Your task to perform on an android device: change keyboard looks Image 0: 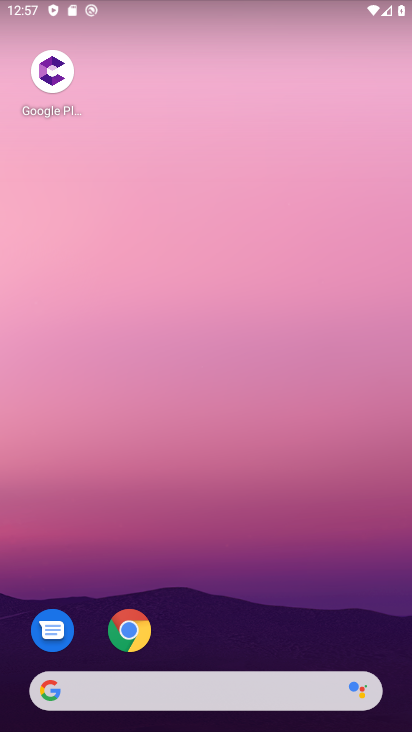
Step 0: drag from (244, 697) to (257, 262)
Your task to perform on an android device: change keyboard looks Image 1: 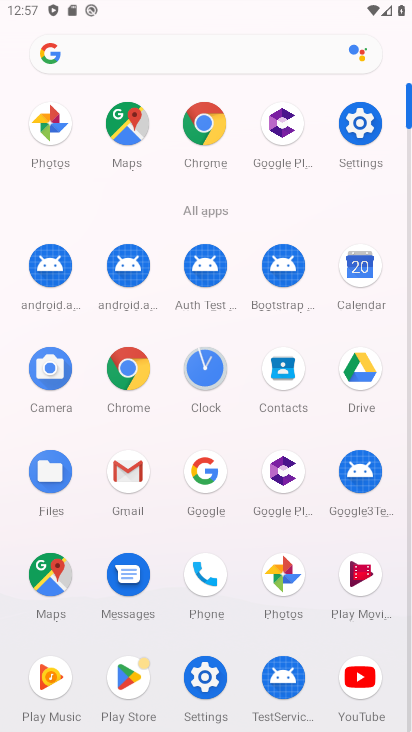
Step 1: click (346, 128)
Your task to perform on an android device: change keyboard looks Image 2: 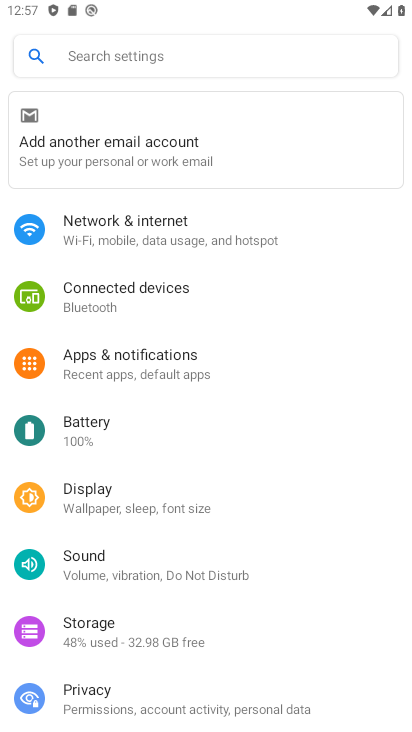
Step 2: click (143, 64)
Your task to perform on an android device: change keyboard looks Image 3: 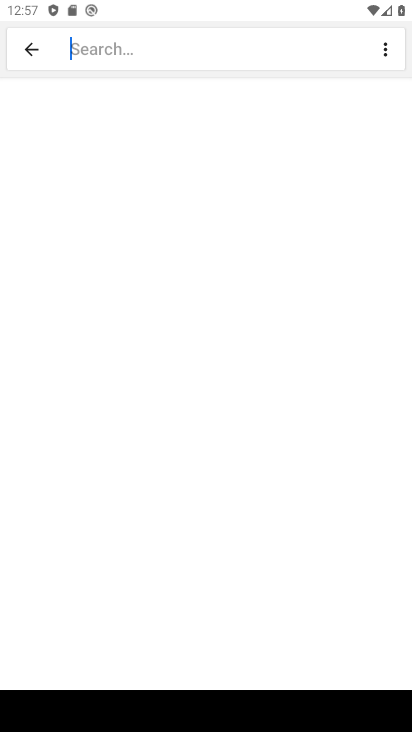
Step 3: drag from (361, 712) to (373, 554)
Your task to perform on an android device: change keyboard looks Image 4: 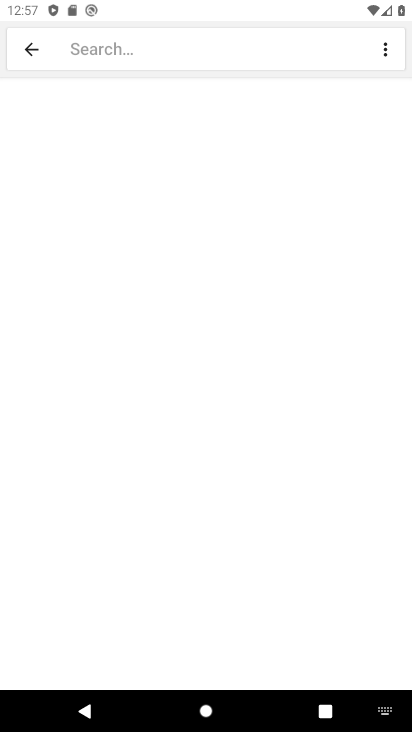
Step 4: click (389, 712)
Your task to perform on an android device: change keyboard looks Image 5: 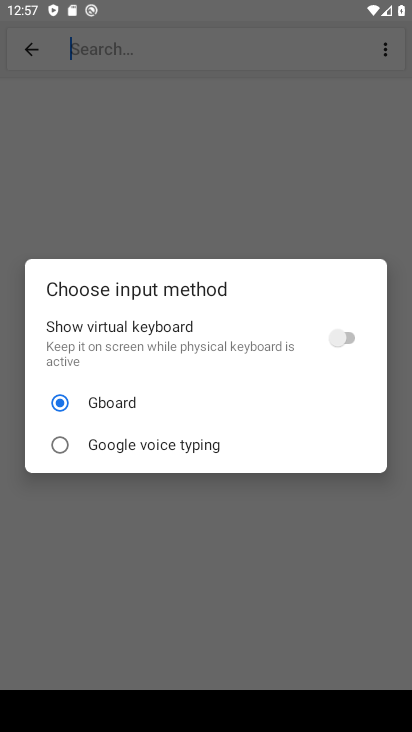
Step 5: click (351, 332)
Your task to perform on an android device: change keyboard looks Image 6: 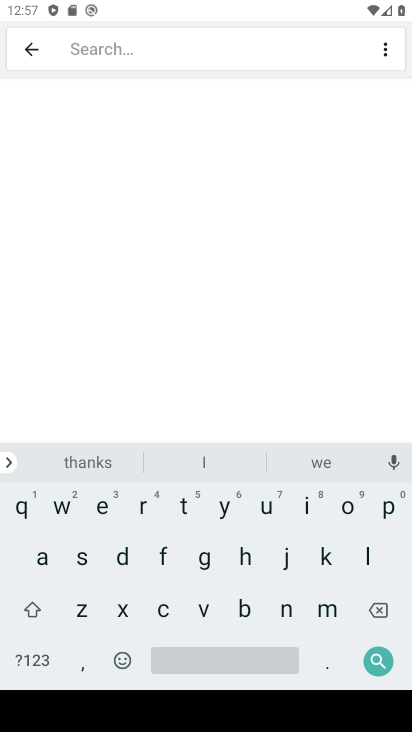
Step 6: click (328, 555)
Your task to perform on an android device: change keyboard looks Image 7: 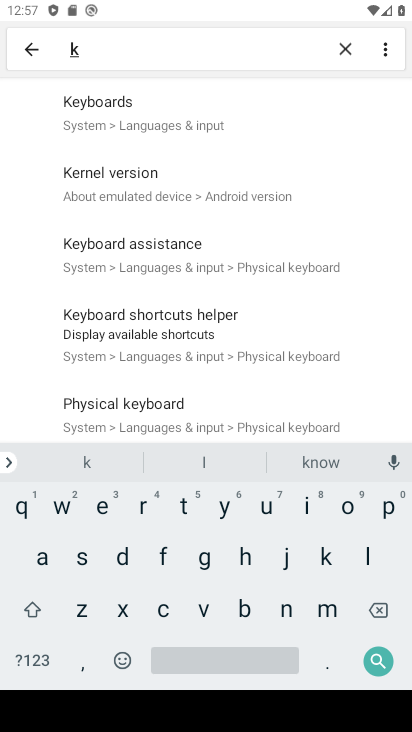
Step 7: click (180, 132)
Your task to perform on an android device: change keyboard looks Image 8: 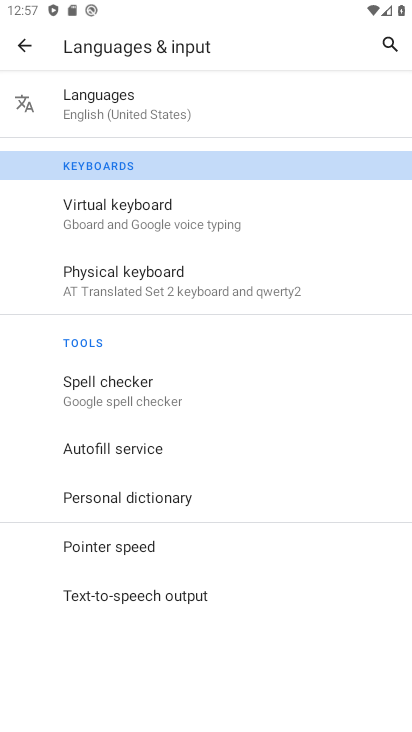
Step 8: click (106, 267)
Your task to perform on an android device: change keyboard looks Image 9: 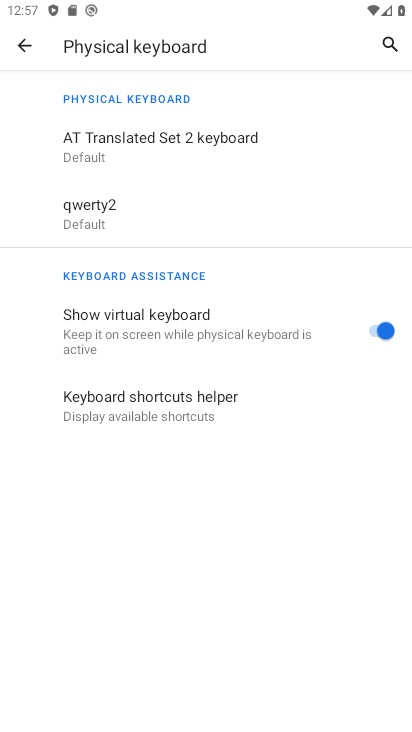
Step 9: click (21, 49)
Your task to perform on an android device: change keyboard looks Image 10: 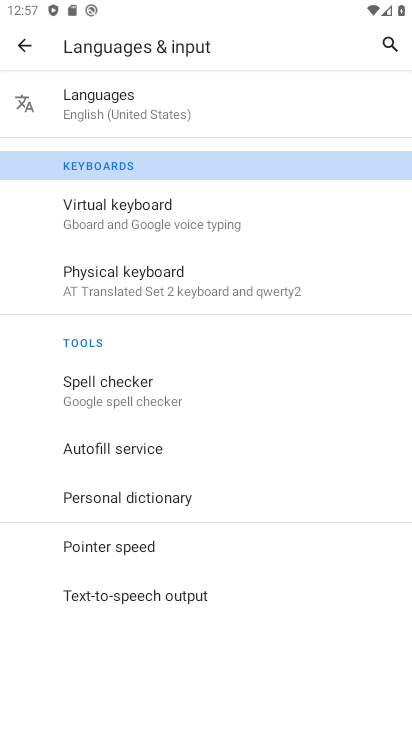
Step 10: click (129, 208)
Your task to perform on an android device: change keyboard looks Image 11: 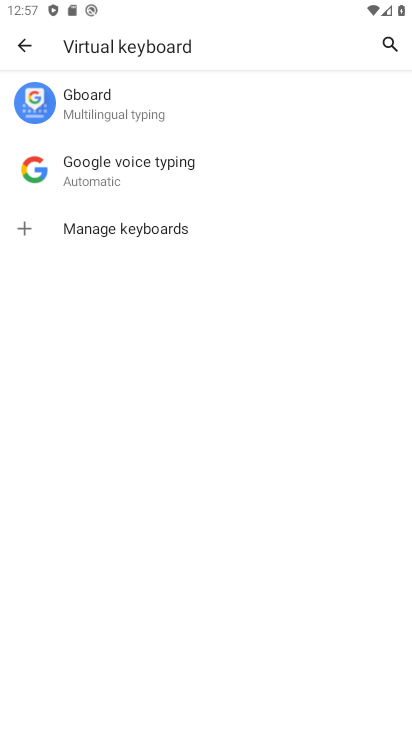
Step 11: click (104, 102)
Your task to perform on an android device: change keyboard looks Image 12: 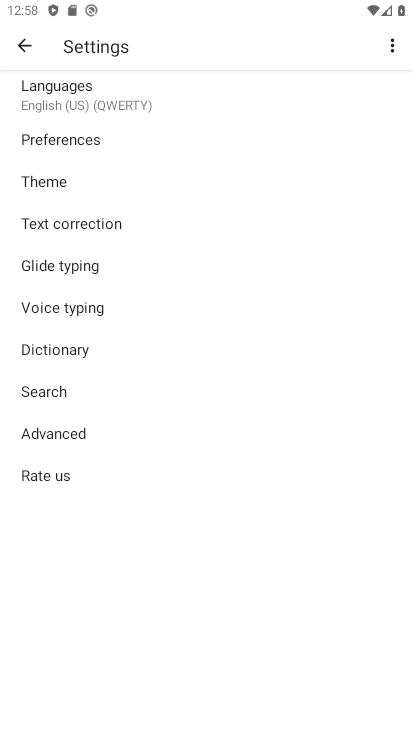
Step 12: click (53, 182)
Your task to perform on an android device: change keyboard looks Image 13: 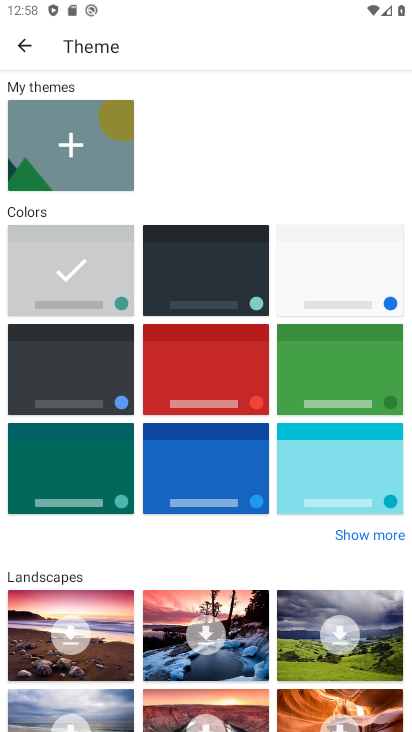
Step 13: click (97, 380)
Your task to perform on an android device: change keyboard looks Image 14: 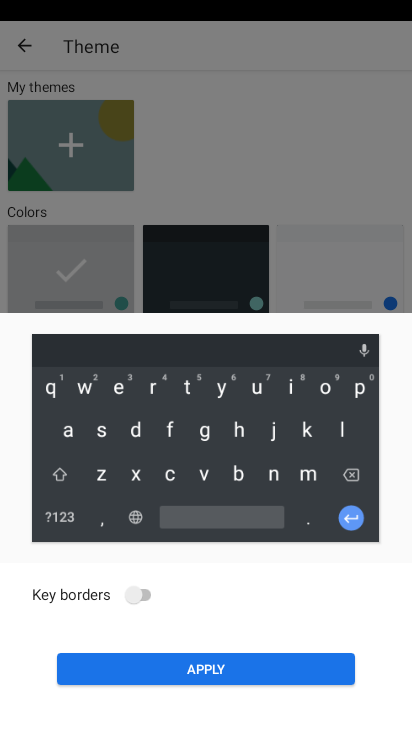
Step 14: click (147, 585)
Your task to perform on an android device: change keyboard looks Image 15: 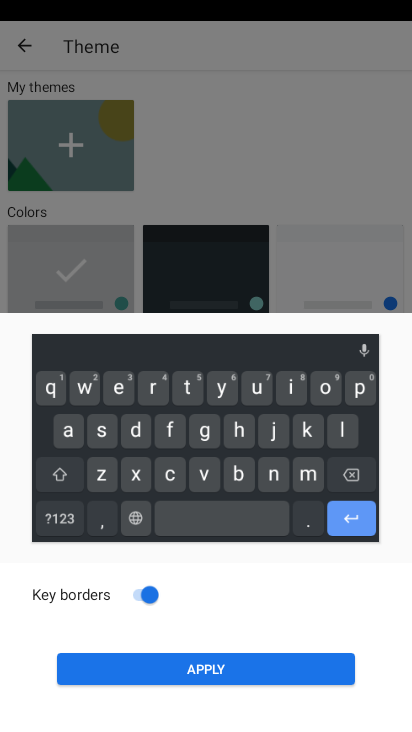
Step 15: click (208, 666)
Your task to perform on an android device: change keyboard looks Image 16: 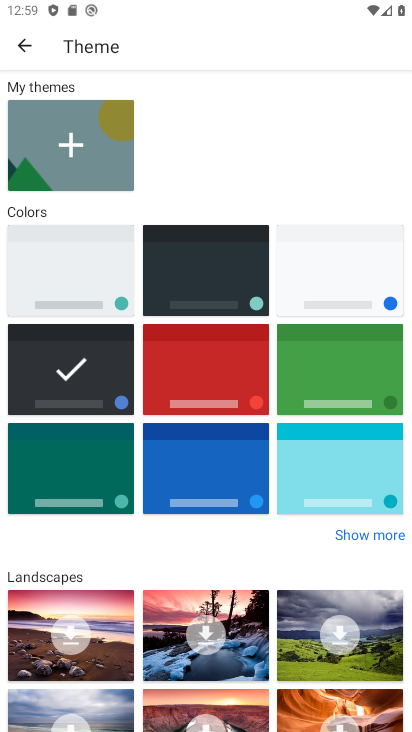
Step 16: task complete